Your task to perform on an android device: Check the news Image 0: 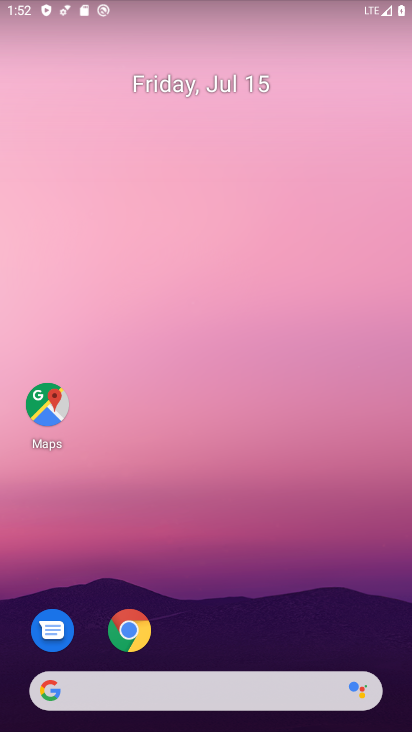
Step 0: press home button
Your task to perform on an android device: Check the news Image 1: 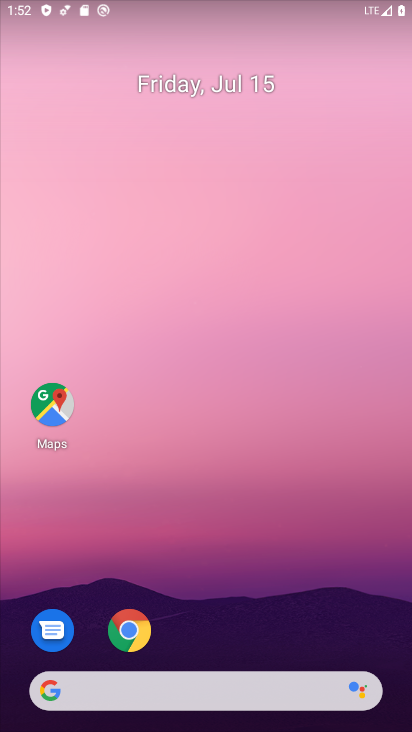
Step 1: click (48, 681)
Your task to perform on an android device: Check the news Image 2: 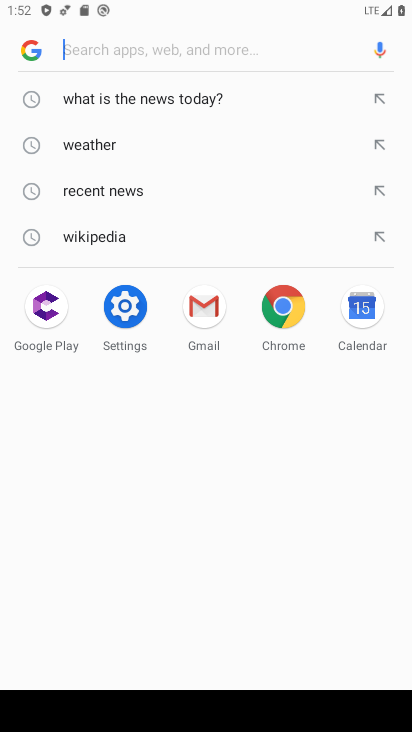
Step 2: type "news"
Your task to perform on an android device: Check the news Image 3: 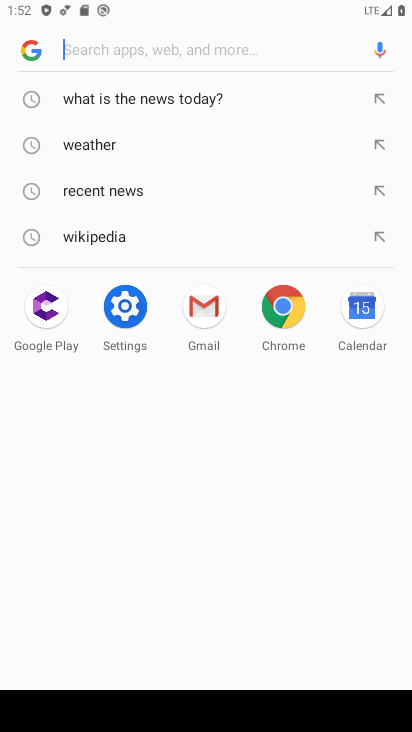
Step 3: click (85, 46)
Your task to perform on an android device: Check the news Image 4: 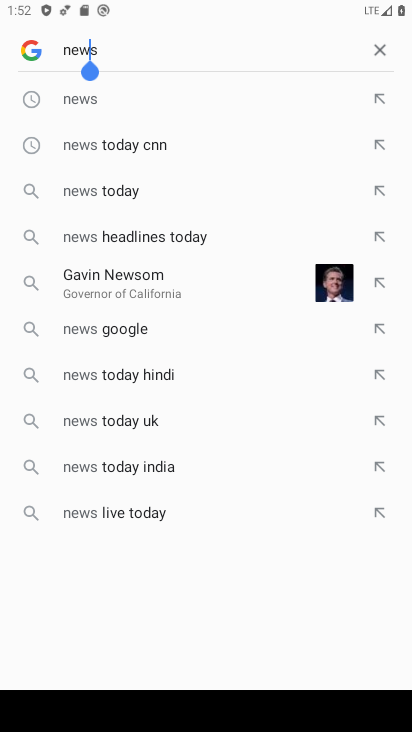
Step 4: click (58, 98)
Your task to perform on an android device: Check the news Image 5: 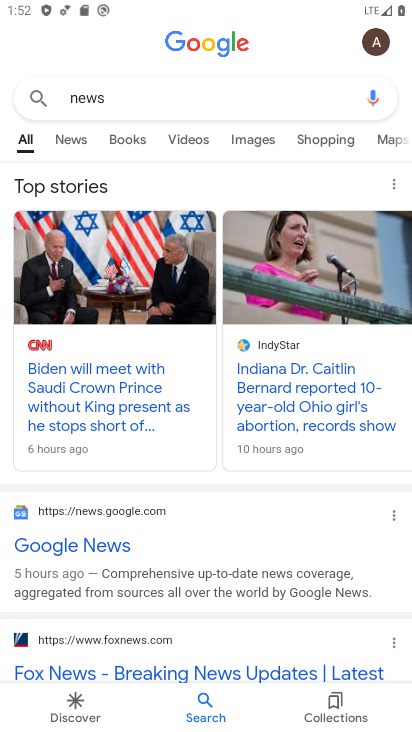
Step 5: task complete